Your task to perform on an android device: What's the weather going to be this weekend? Image 0: 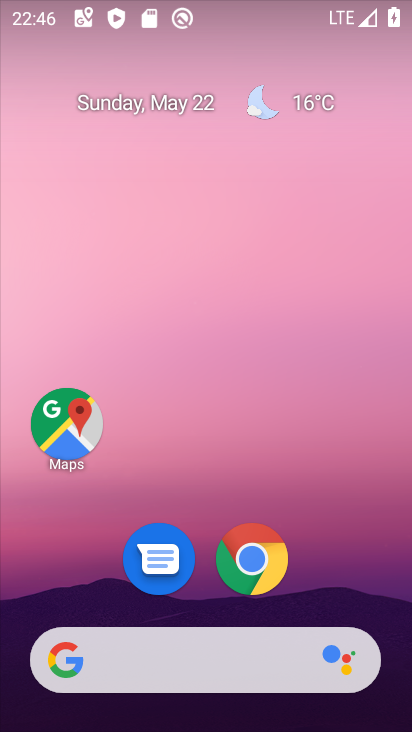
Step 0: drag from (317, 683) to (293, 89)
Your task to perform on an android device: What's the weather going to be this weekend? Image 1: 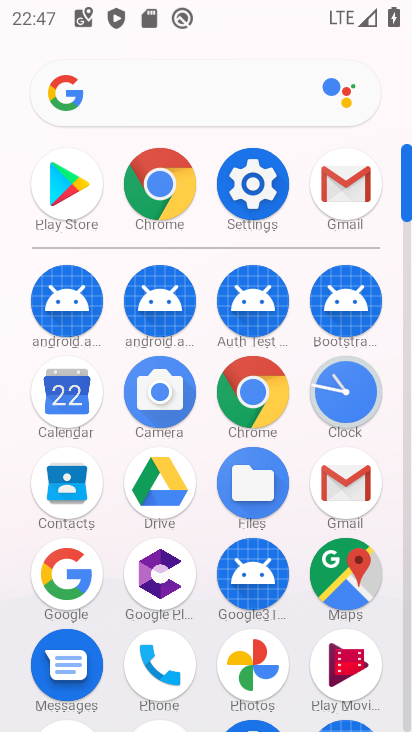
Step 1: click (194, 108)
Your task to perform on an android device: What's the weather going to be this weekend? Image 2: 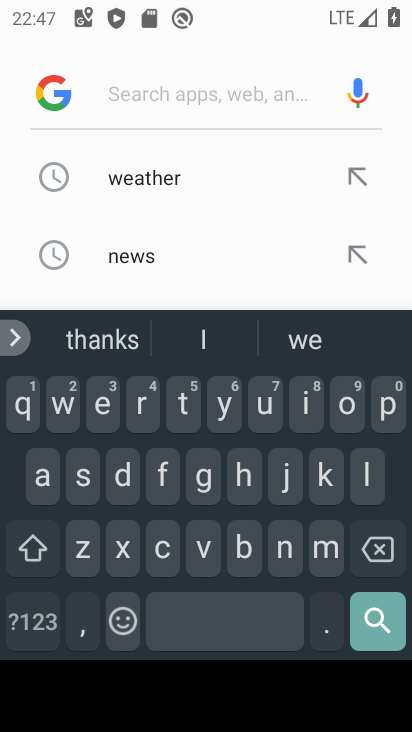
Step 2: click (163, 172)
Your task to perform on an android device: What's the weather going to be this weekend? Image 3: 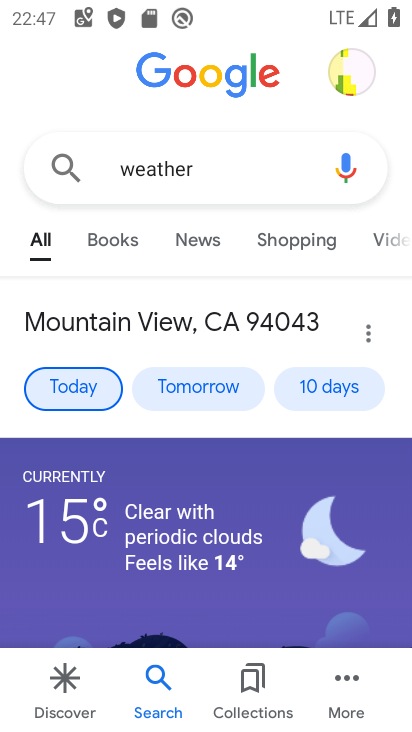
Step 3: click (327, 386)
Your task to perform on an android device: What's the weather going to be this weekend? Image 4: 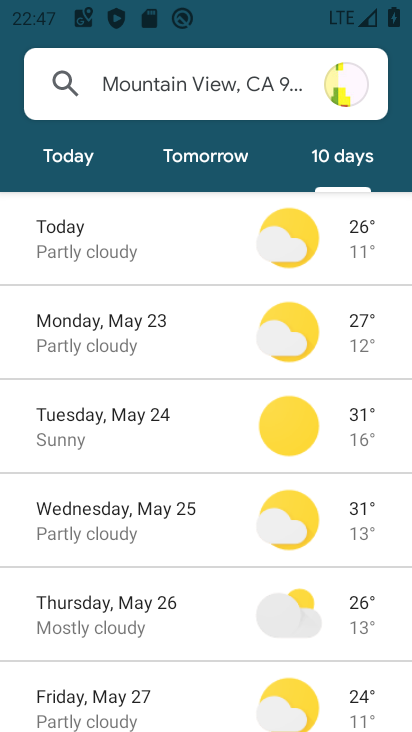
Step 4: task complete